Your task to perform on an android device: Go to Amazon Image 0: 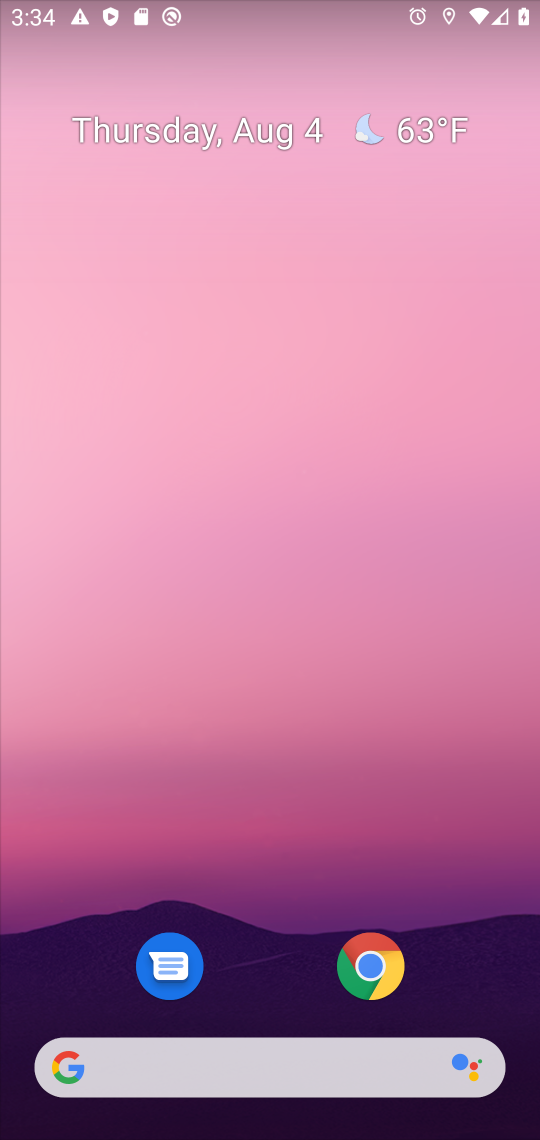
Step 0: click (80, 1072)
Your task to perform on an android device: Go to Amazon Image 1: 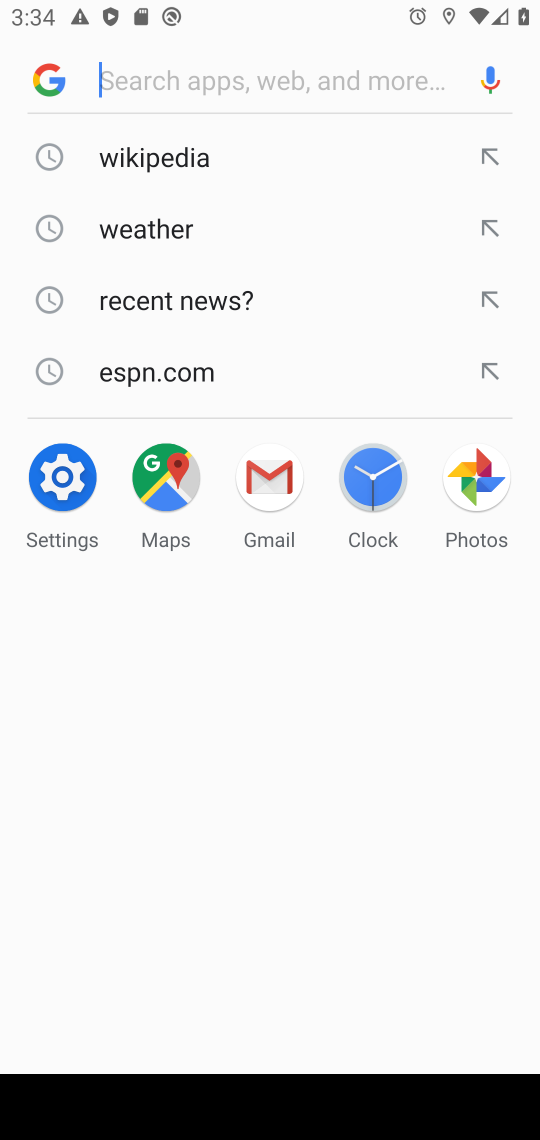
Step 1: type " Amazon"
Your task to perform on an android device: Go to Amazon Image 2: 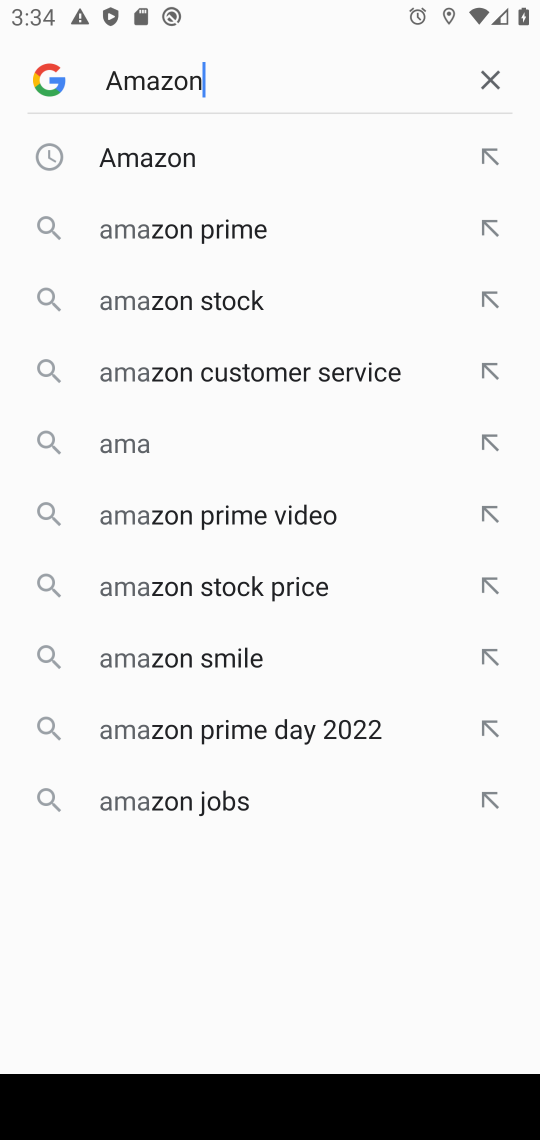
Step 2: press enter
Your task to perform on an android device: Go to Amazon Image 3: 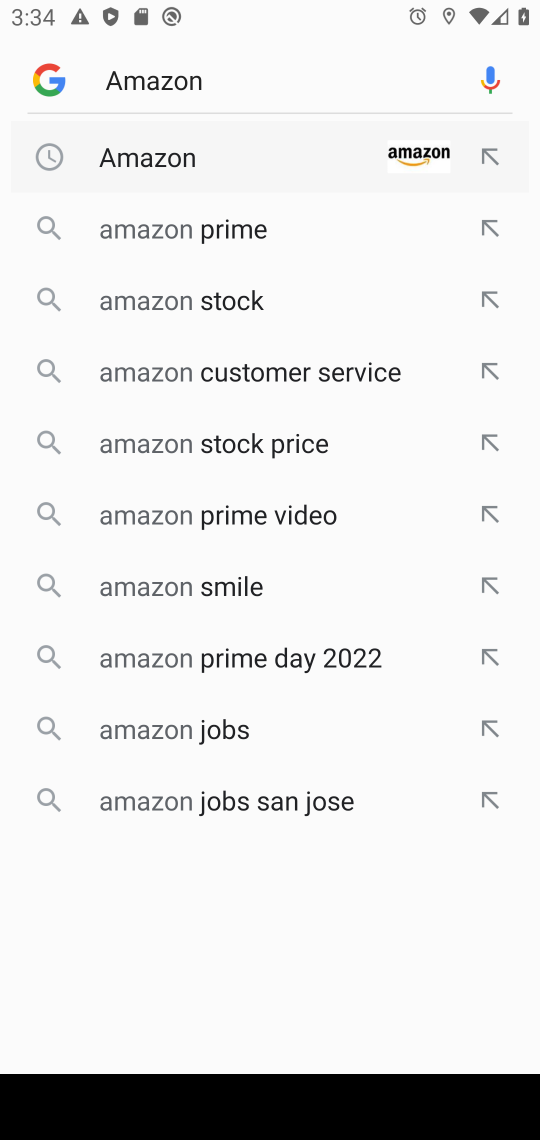
Step 3: click (156, 154)
Your task to perform on an android device: Go to Amazon Image 4: 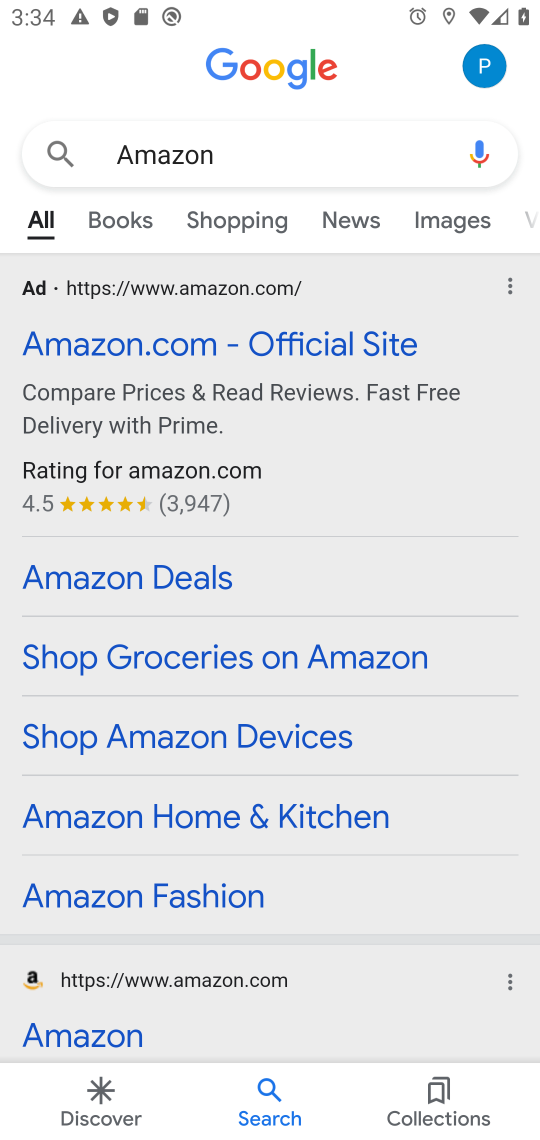
Step 4: click (167, 353)
Your task to perform on an android device: Go to Amazon Image 5: 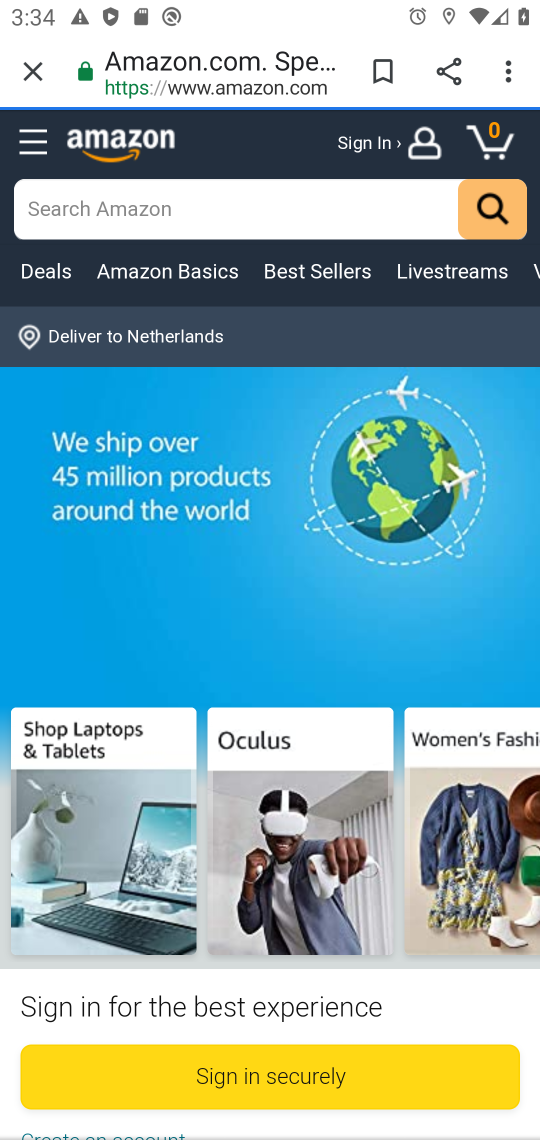
Step 5: task complete